Your task to perform on an android device: delete the emails in spam in the gmail app Image 0: 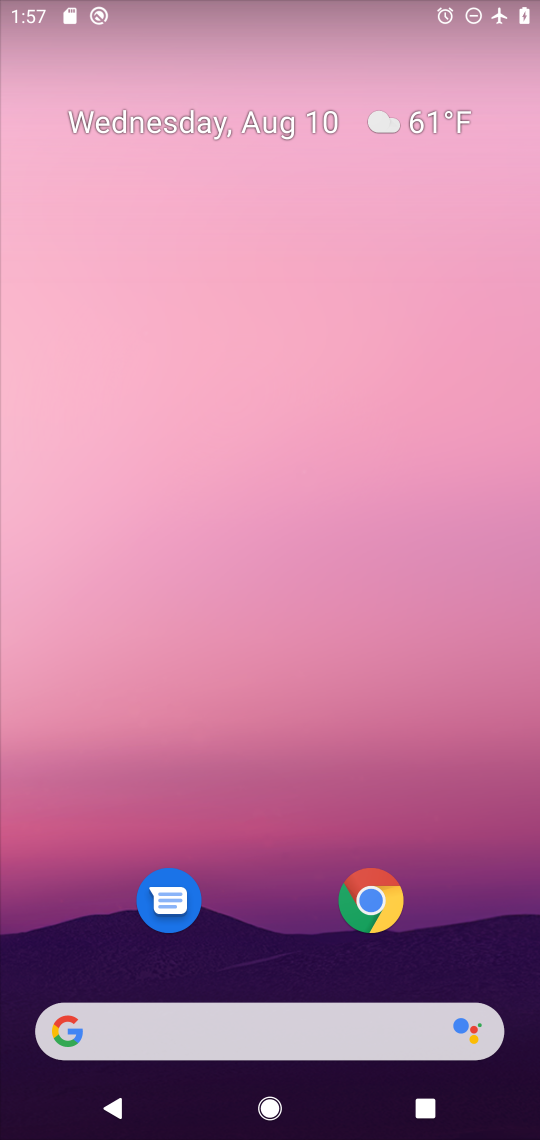
Step 0: drag from (277, 867) to (280, 9)
Your task to perform on an android device: delete the emails in spam in the gmail app Image 1: 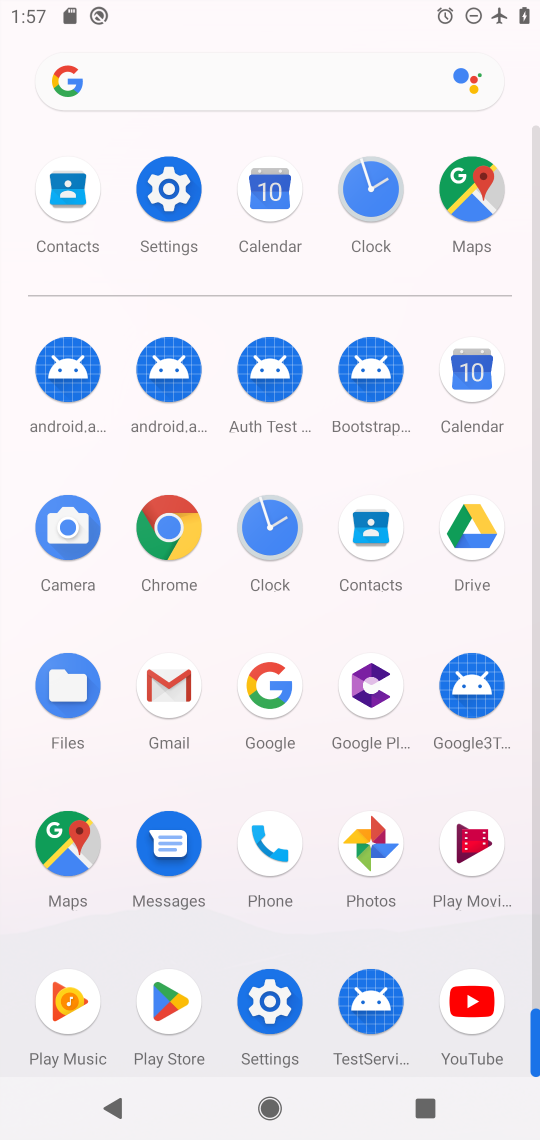
Step 1: click (167, 678)
Your task to perform on an android device: delete the emails in spam in the gmail app Image 2: 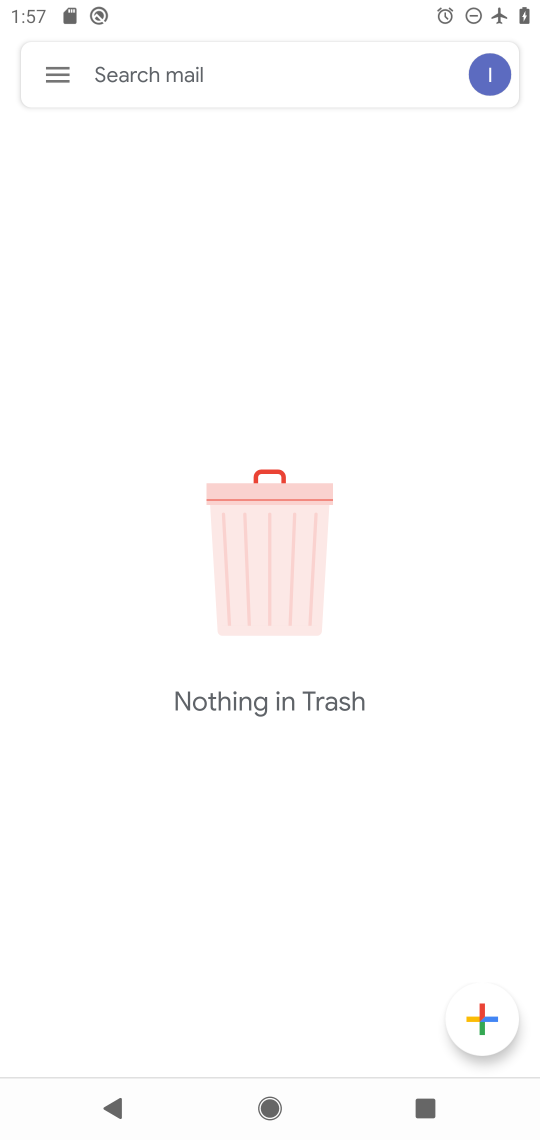
Step 2: click (55, 60)
Your task to perform on an android device: delete the emails in spam in the gmail app Image 3: 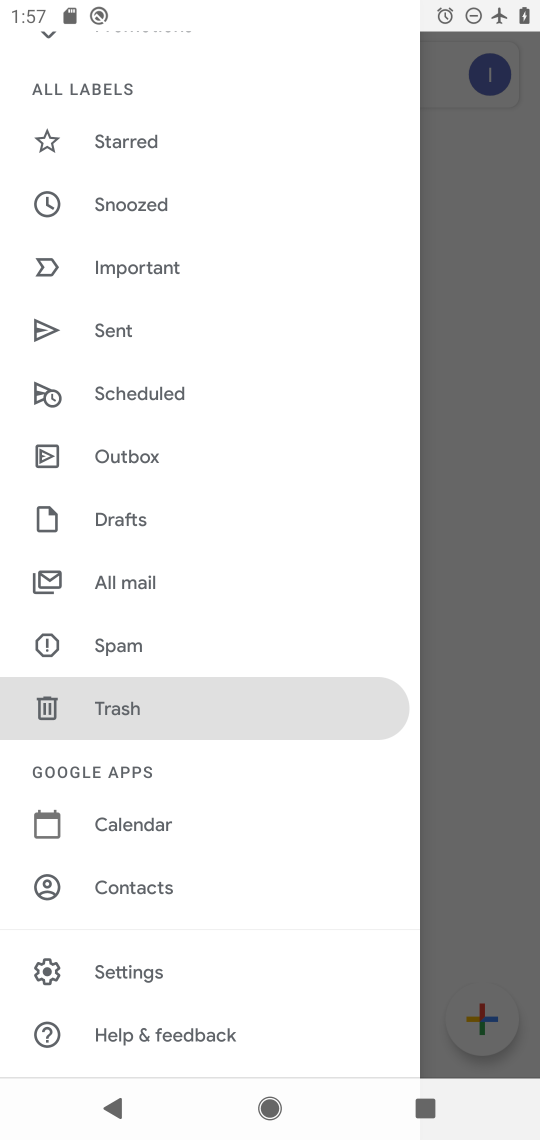
Step 3: click (147, 644)
Your task to perform on an android device: delete the emails in spam in the gmail app Image 4: 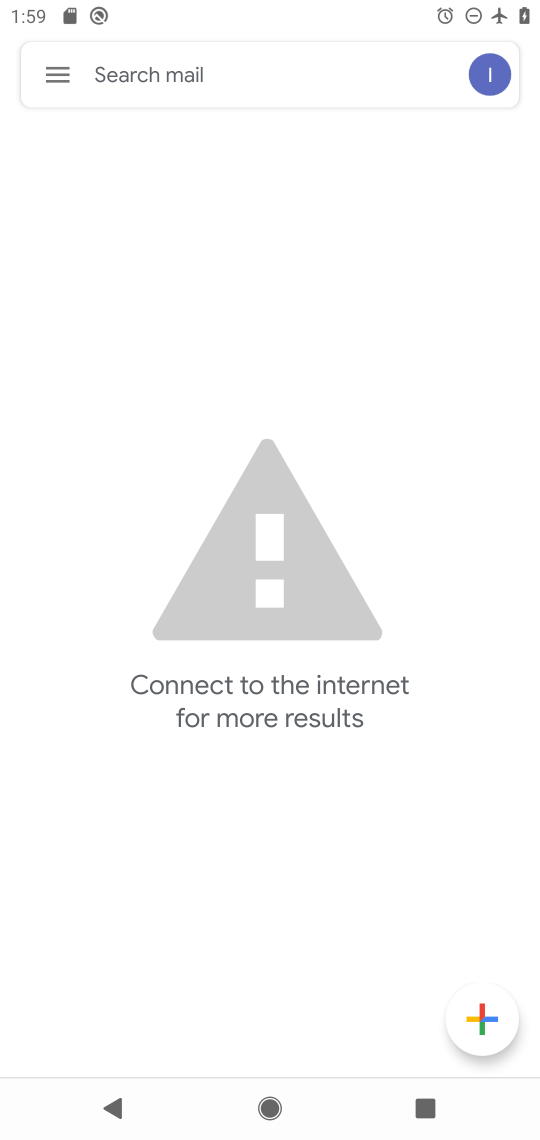
Step 4: task complete